Your task to perform on an android device: turn vacation reply on in the gmail app Image 0: 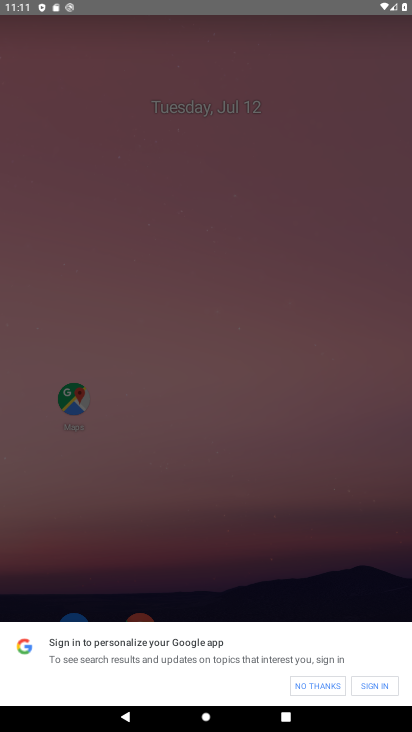
Step 0: press home button
Your task to perform on an android device: turn vacation reply on in the gmail app Image 1: 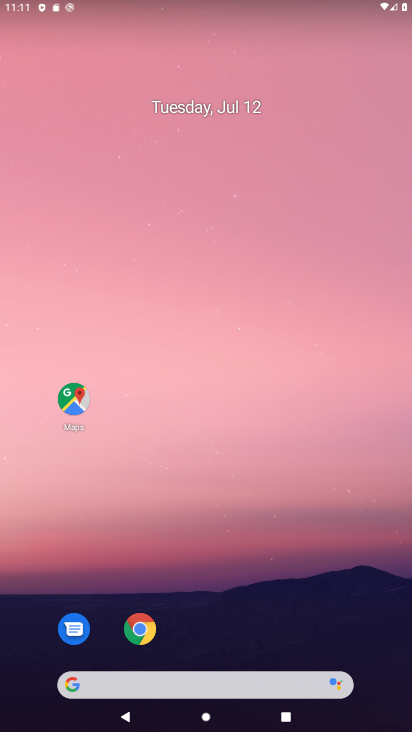
Step 1: drag from (293, 504) to (196, 47)
Your task to perform on an android device: turn vacation reply on in the gmail app Image 2: 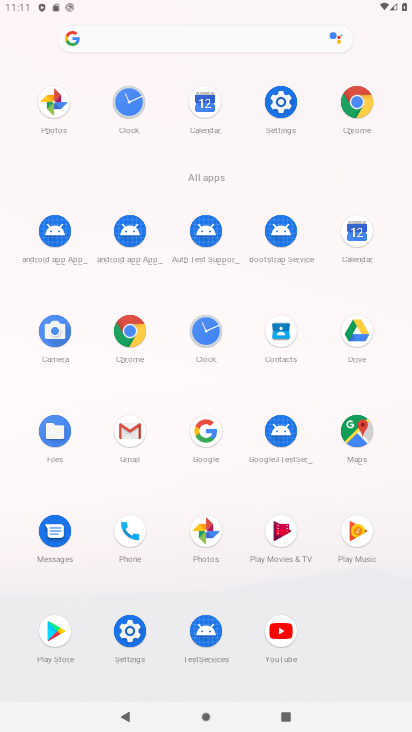
Step 2: click (124, 433)
Your task to perform on an android device: turn vacation reply on in the gmail app Image 3: 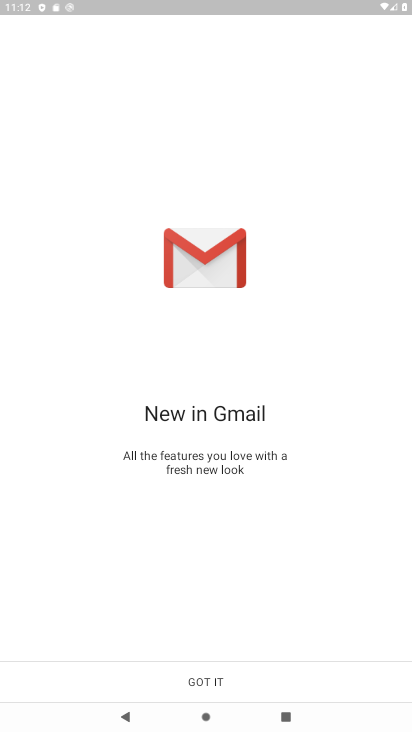
Step 3: click (209, 680)
Your task to perform on an android device: turn vacation reply on in the gmail app Image 4: 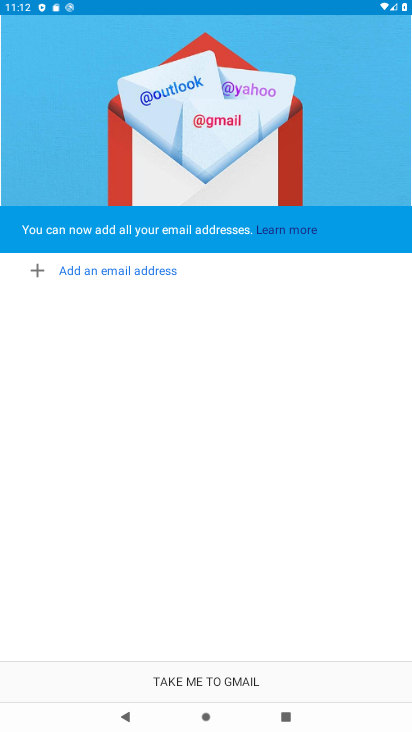
Step 4: click (205, 679)
Your task to perform on an android device: turn vacation reply on in the gmail app Image 5: 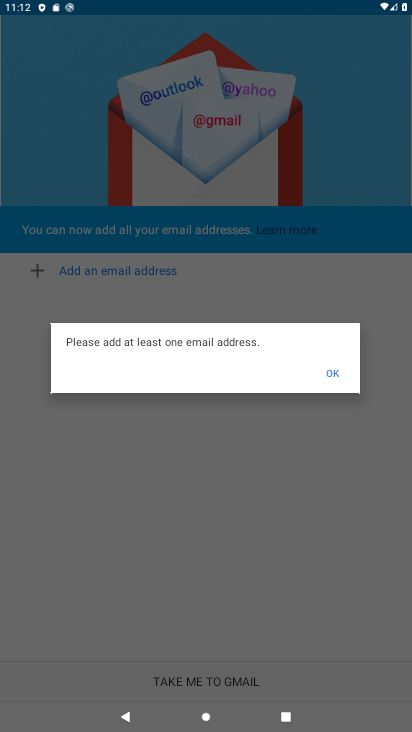
Step 5: click (333, 372)
Your task to perform on an android device: turn vacation reply on in the gmail app Image 6: 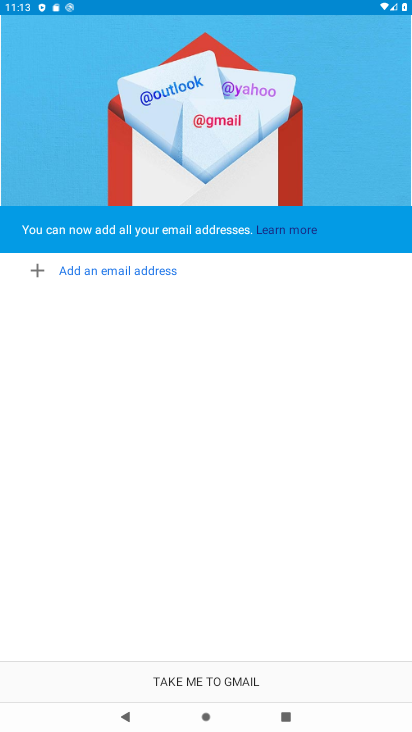
Step 6: click (194, 683)
Your task to perform on an android device: turn vacation reply on in the gmail app Image 7: 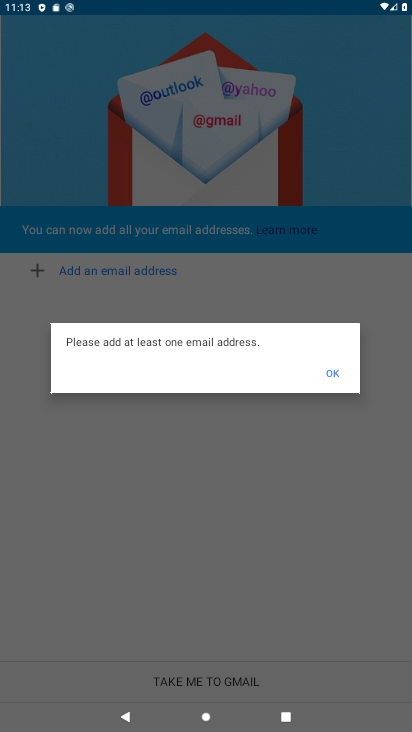
Step 7: click (335, 377)
Your task to perform on an android device: turn vacation reply on in the gmail app Image 8: 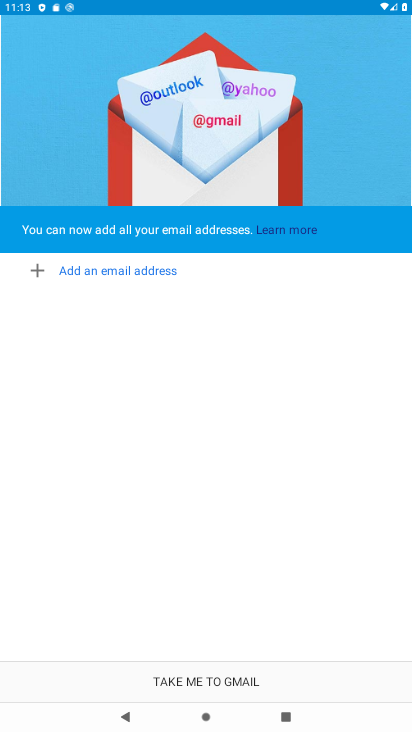
Step 8: task complete